Your task to perform on an android device: Open the web browser Image 0: 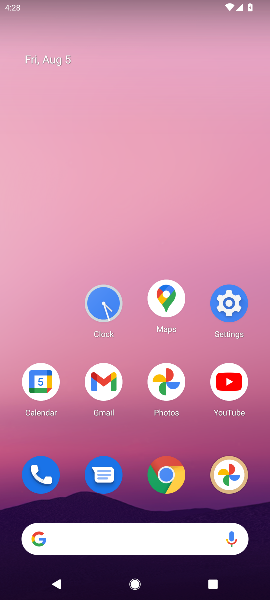
Step 0: click (161, 468)
Your task to perform on an android device: Open the web browser Image 1: 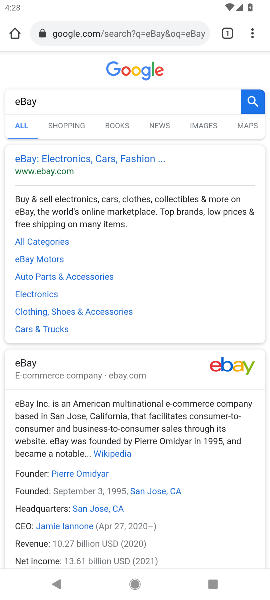
Step 1: task complete